Your task to perform on an android device: Open Chrome and go to the settings page Image 0: 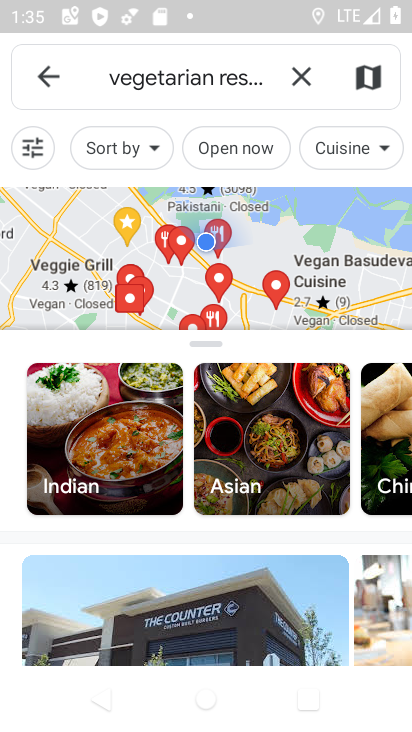
Step 0: press home button
Your task to perform on an android device: Open Chrome and go to the settings page Image 1: 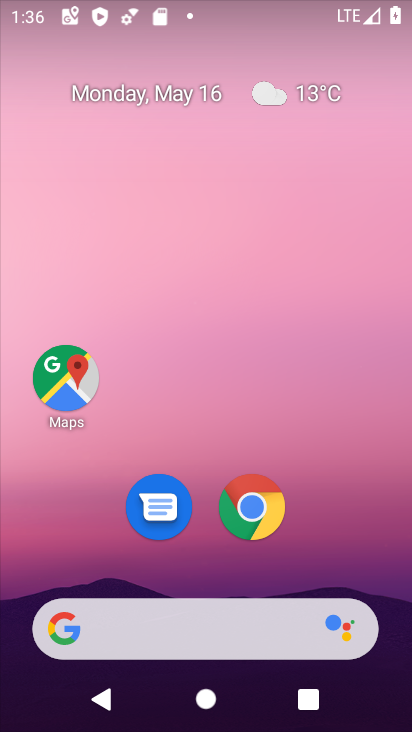
Step 1: click (251, 509)
Your task to perform on an android device: Open Chrome and go to the settings page Image 2: 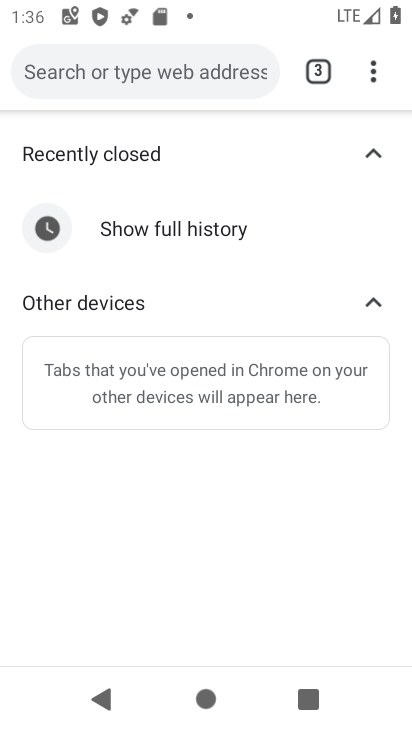
Step 2: click (377, 72)
Your task to perform on an android device: Open Chrome and go to the settings page Image 3: 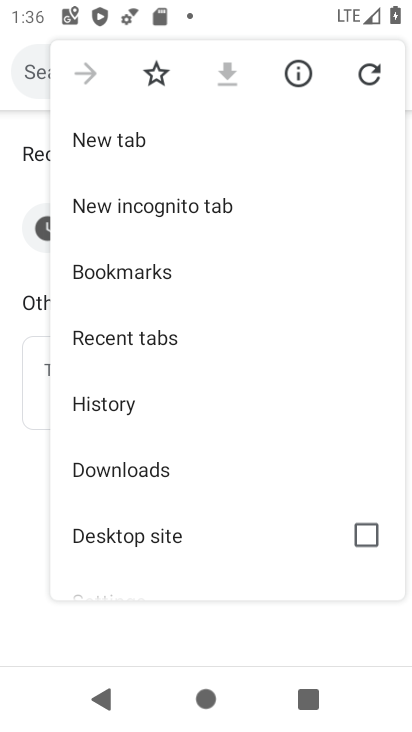
Step 3: drag from (232, 499) to (214, 124)
Your task to perform on an android device: Open Chrome and go to the settings page Image 4: 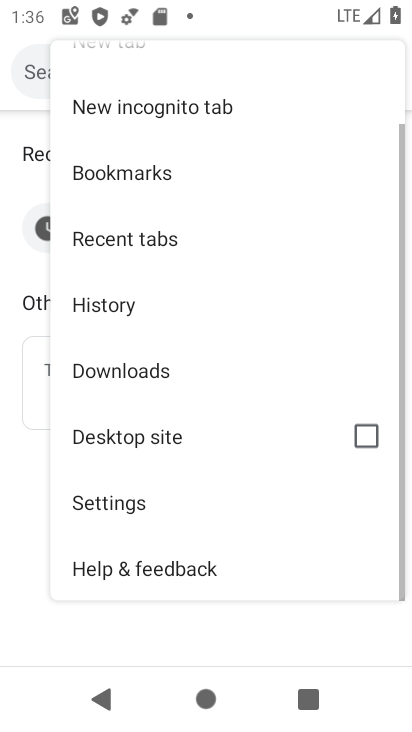
Step 4: click (161, 499)
Your task to perform on an android device: Open Chrome and go to the settings page Image 5: 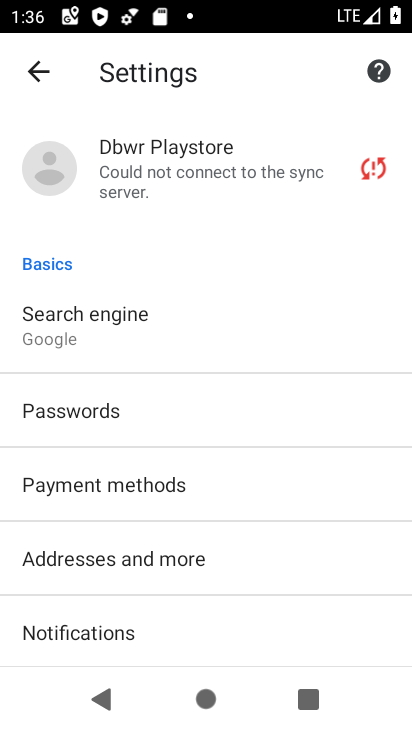
Step 5: task complete